Your task to perform on an android device: open a bookmark in the chrome app Image 0: 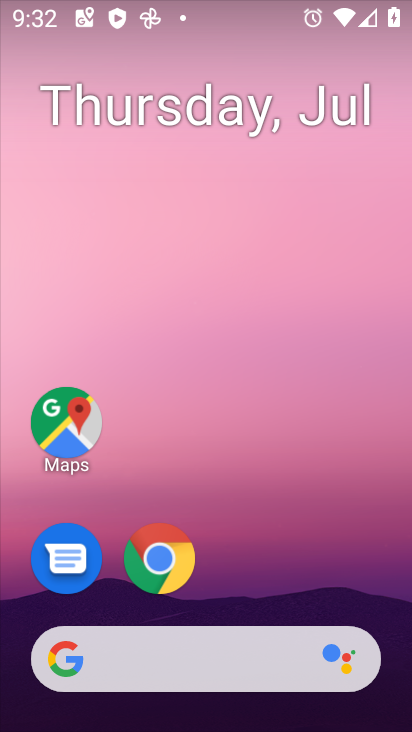
Step 0: drag from (354, 563) to (365, 75)
Your task to perform on an android device: open a bookmark in the chrome app Image 1: 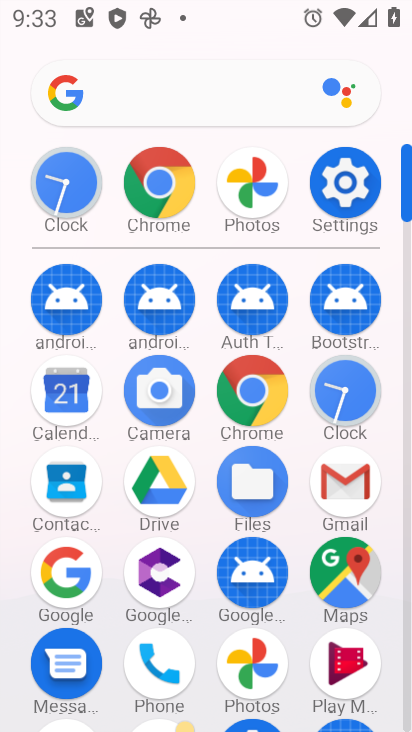
Step 1: click (251, 399)
Your task to perform on an android device: open a bookmark in the chrome app Image 2: 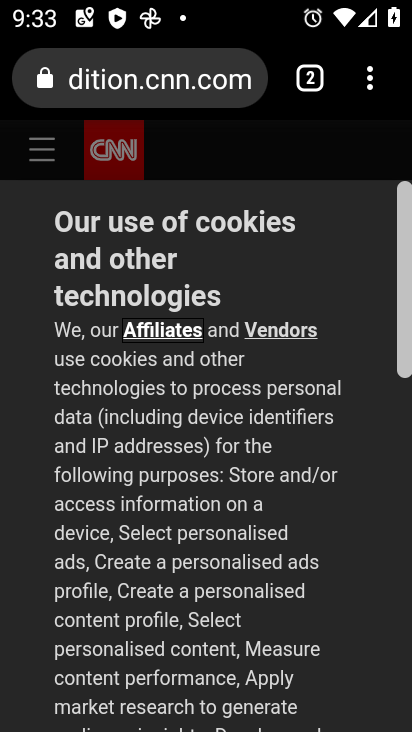
Step 2: click (371, 91)
Your task to perform on an android device: open a bookmark in the chrome app Image 3: 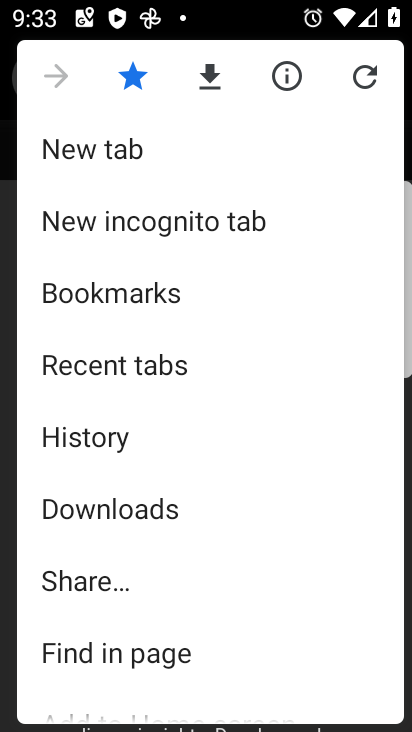
Step 3: click (178, 301)
Your task to perform on an android device: open a bookmark in the chrome app Image 4: 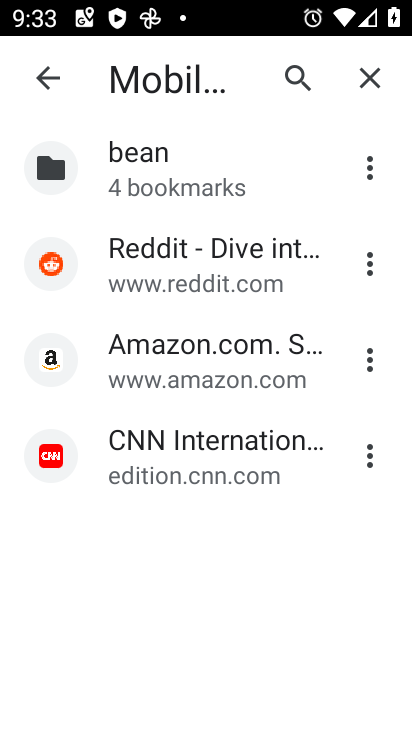
Step 4: click (203, 358)
Your task to perform on an android device: open a bookmark in the chrome app Image 5: 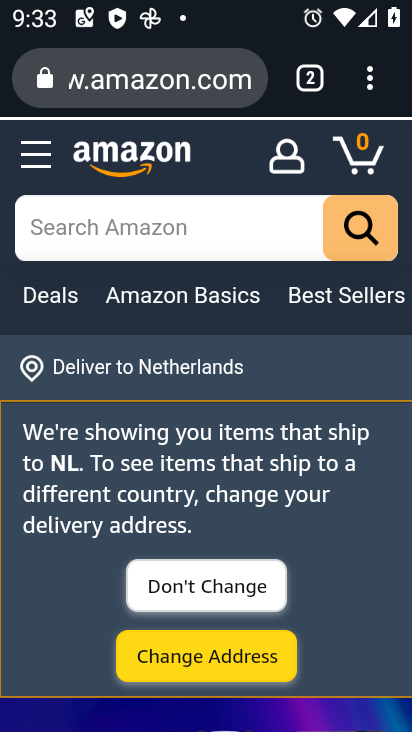
Step 5: task complete